Your task to perform on an android device: Open display settings Image 0: 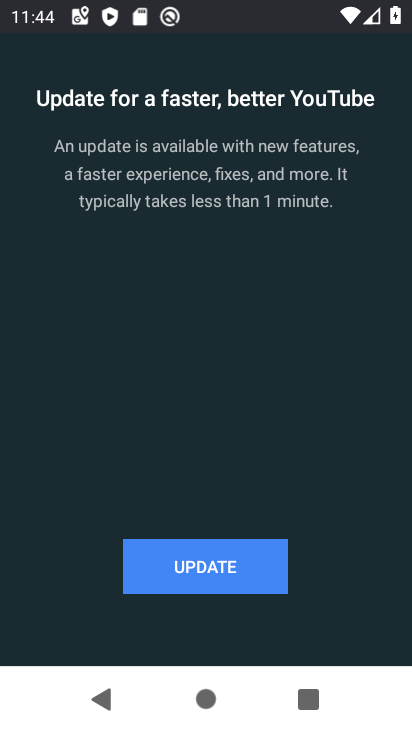
Step 0: press back button
Your task to perform on an android device: Open display settings Image 1: 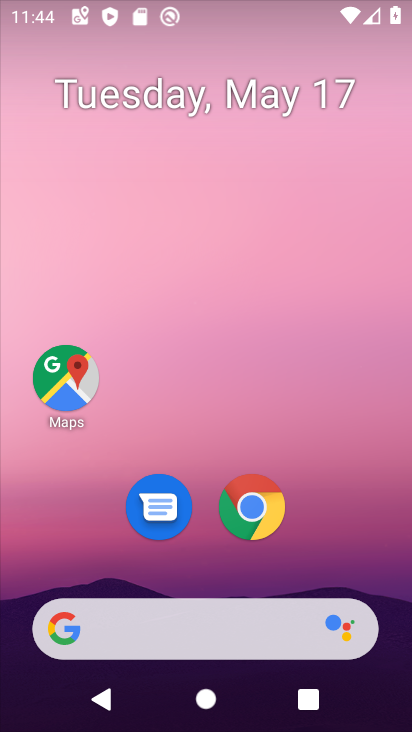
Step 1: drag from (335, 519) to (390, 218)
Your task to perform on an android device: Open display settings Image 2: 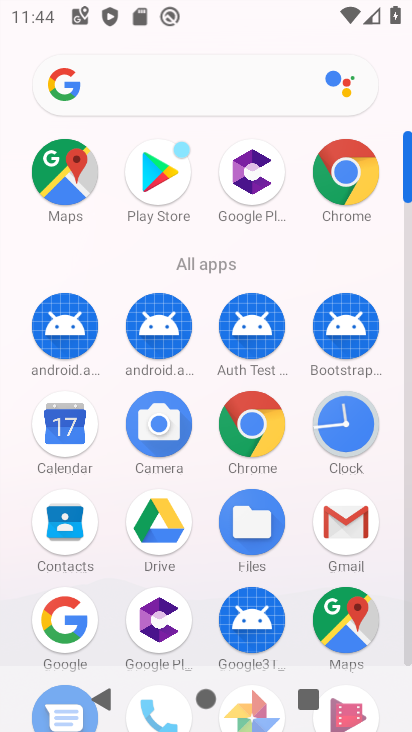
Step 2: drag from (202, 596) to (253, 320)
Your task to perform on an android device: Open display settings Image 3: 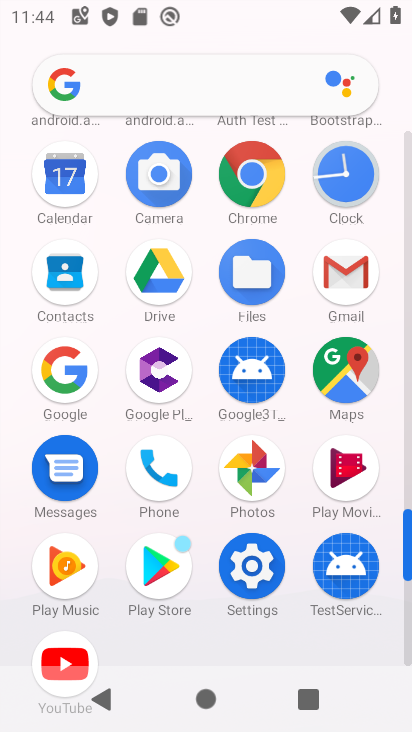
Step 3: click (254, 565)
Your task to perform on an android device: Open display settings Image 4: 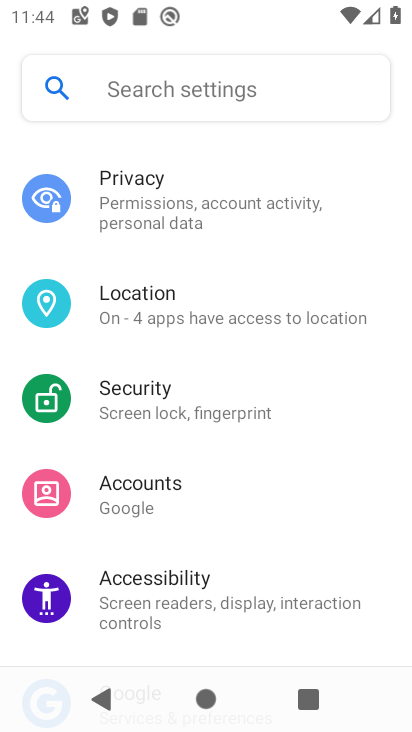
Step 4: drag from (184, 481) to (251, 159)
Your task to perform on an android device: Open display settings Image 5: 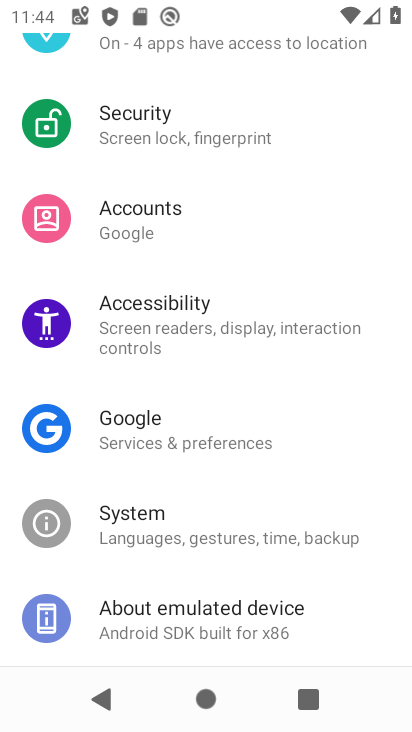
Step 5: drag from (195, 501) to (249, 560)
Your task to perform on an android device: Open display settings Image 6: 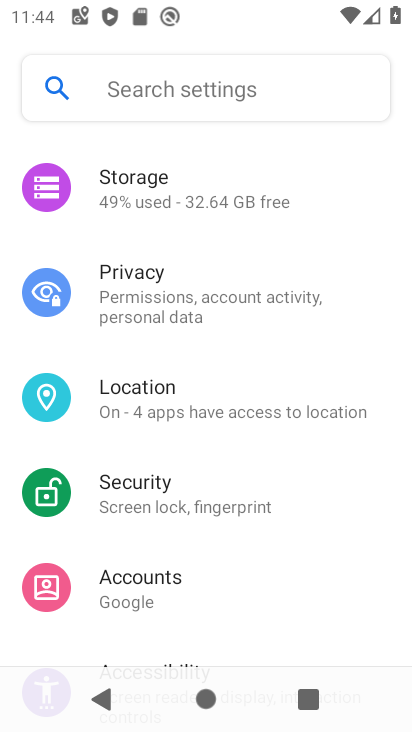
Step 6: drag from (204, 203) to (210, 596)
Your task to perform on an android device: Open display settings Image 7: 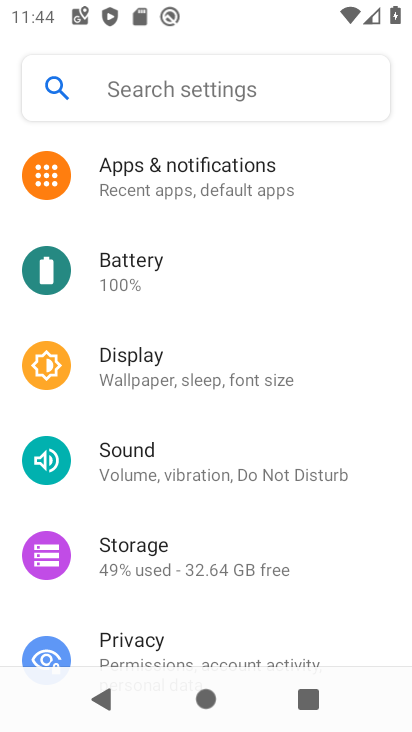
Step 7: click (162, 371)
Your task to perform on an android device: Open display settings Image 8: 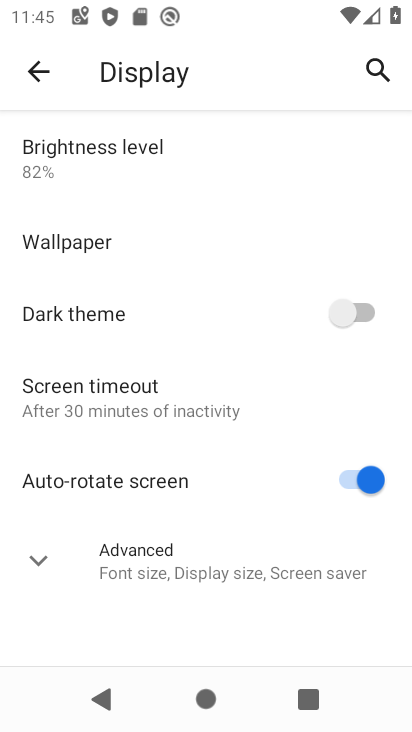
Step 8: task complete